Your task to perform on an android device: Turn off the flashlight Image 0: 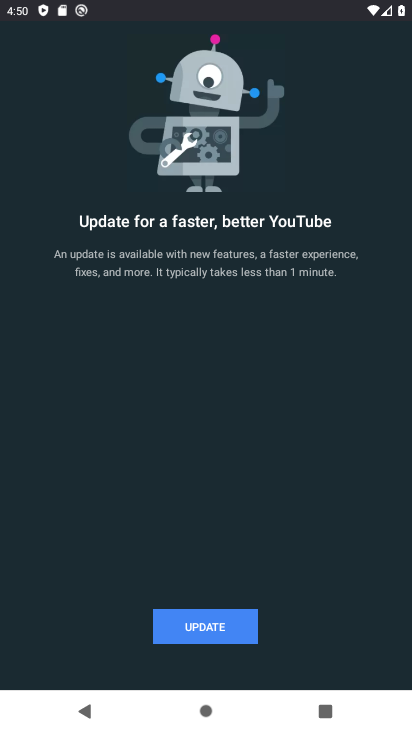
Step 0: press home button
Your task to perform on an android device: Turn off the flashlight Image 1: 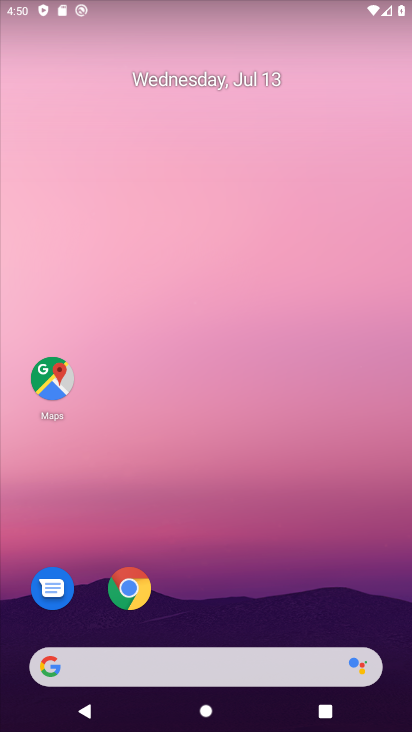
Step 1: task complete